Your task to perform on an android device: Do I have any events tomorrow? Image 0: 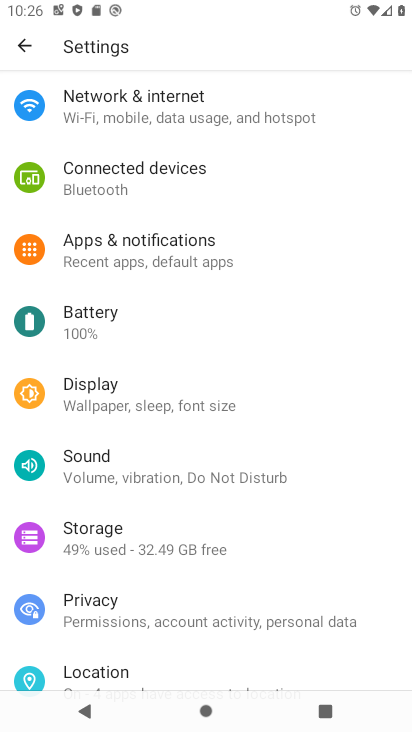
Step 0: press home button
Your task to perform on an android device: Do I have any events tomorrow? Image 1: 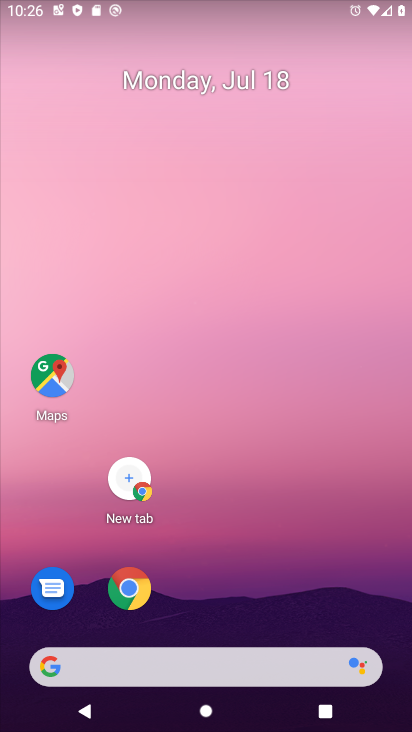
Step 1: click (195, 96)
Your task to perform on an android device: Do I have any events tomorrow? Image 2: 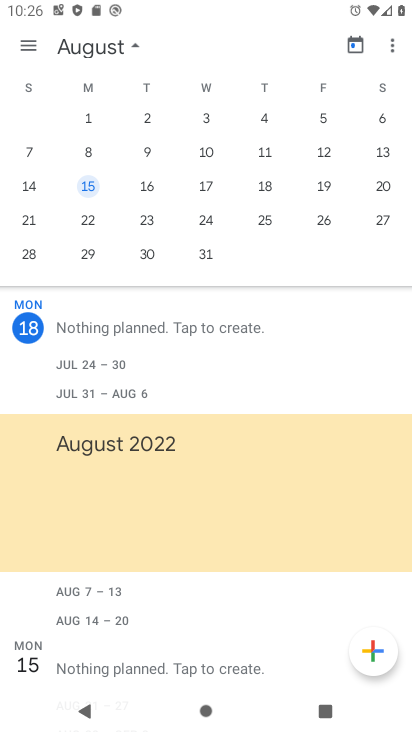
Step 2: click (32, 42)
Your task to perform on an android device: Do I have any events tomorrow? Image 3: 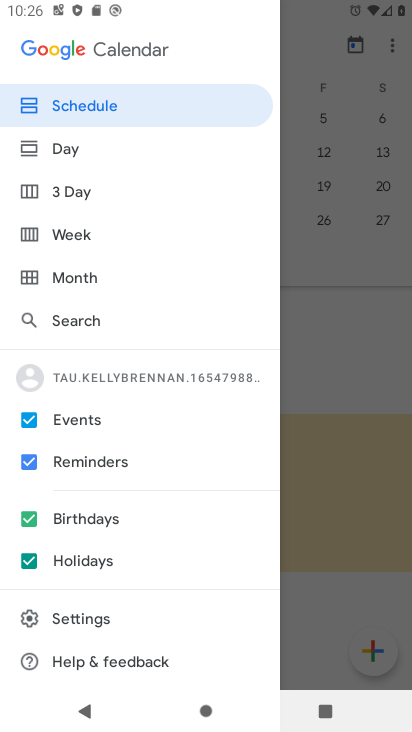
Step 3: click (31, 465)
Your task to perform on an android device: Do I have any events tomorrow? Image 4: 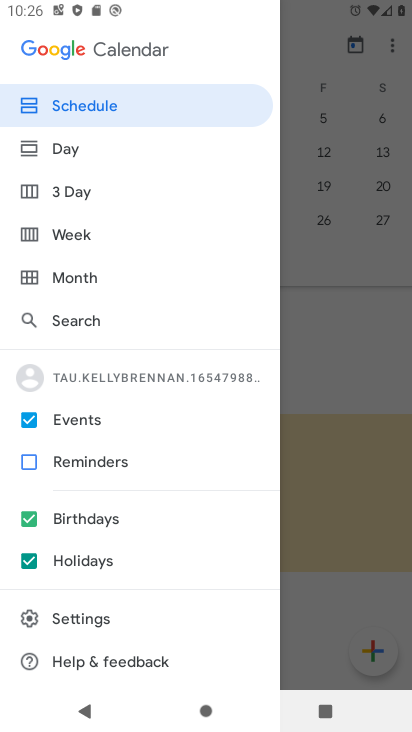
Step 4: click (24, 517)
Your task to perform on an android device: Do I have any events tomorrow? Image 5: 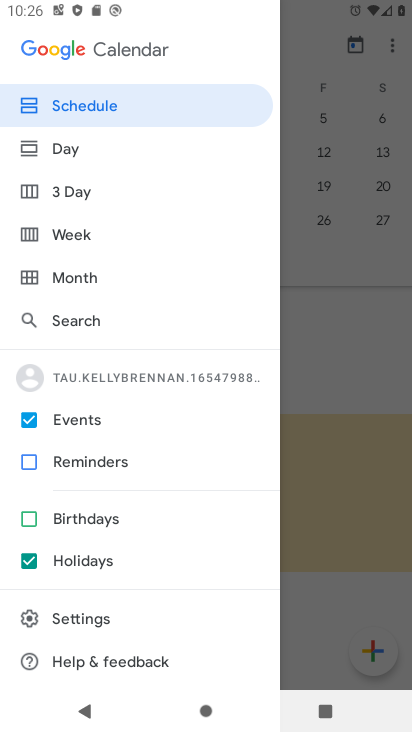
Step 5: click (27, 556)
Your task to perform on an android device: Do I have any events tomorrow? Image 6: 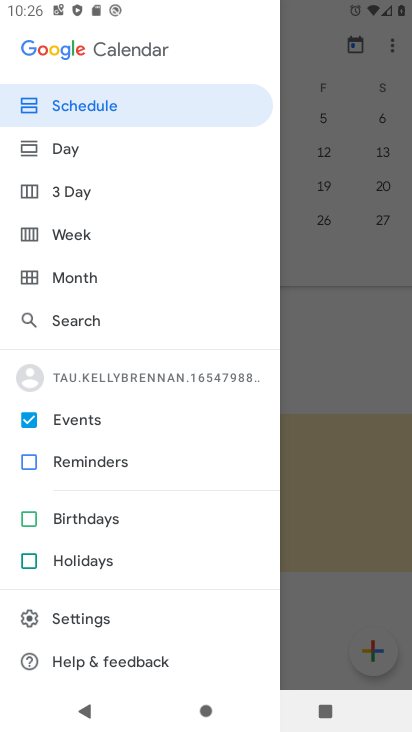
Step 6: click (106, 142)
Your task to perform on an android device: Do I have any events tomorrow? Image 7: 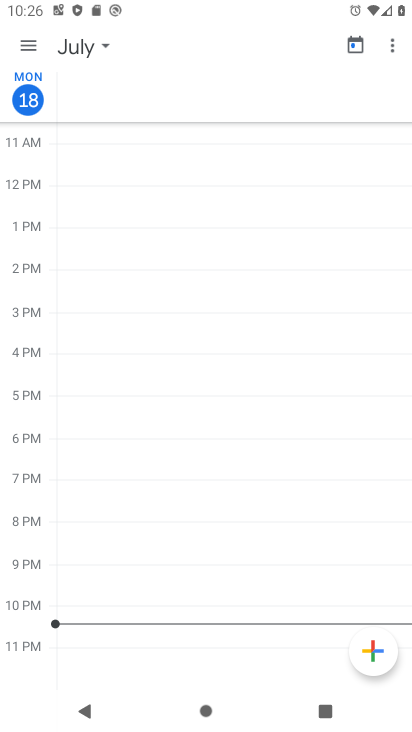
Step 7: click (95, 43)
Your task to perform on an android device: Do I have any events tomorrow? Image 8: 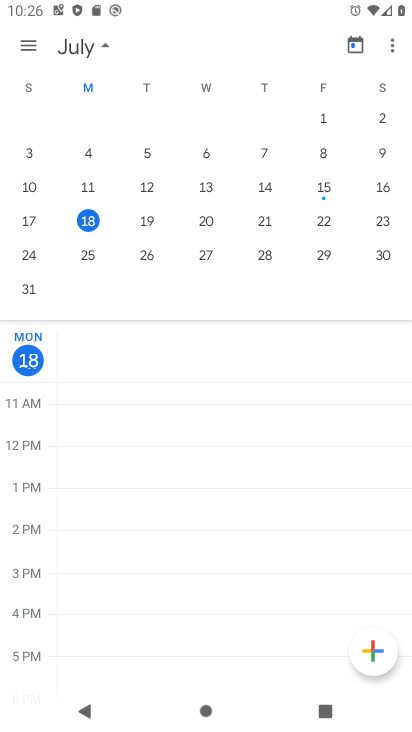
Step 8: click (155, 226)
Your task to perform on an android device: Do I have any events tomorrow? Image 9: 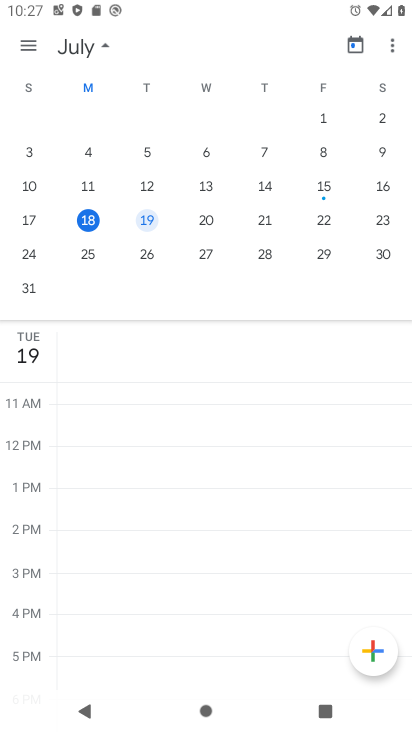
Step 9: task complete